Your task to perform on an android device: Open my contact list Image 0: 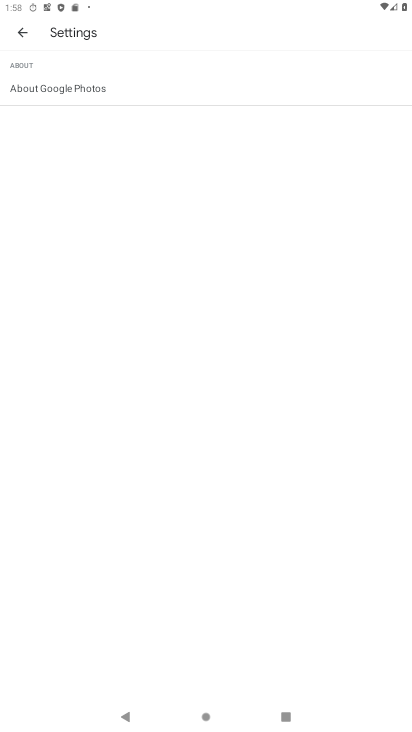
Step 0: press home button
Your task to perform on an android device: Open my contact list Image 1: 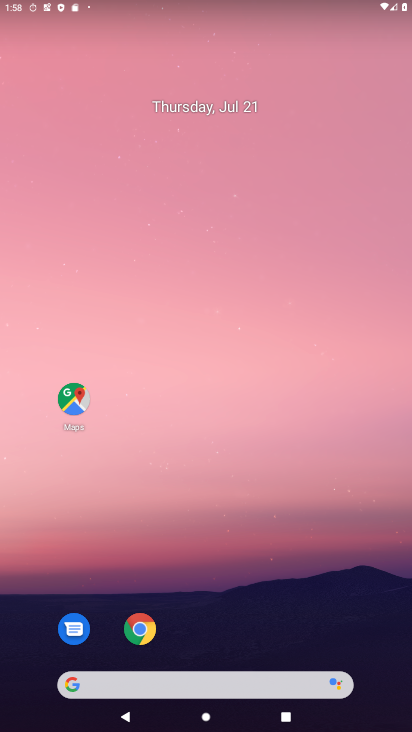
Step 1: drag from (101, 512) to (175, 325)
Your task to perform on an android device: Open my contact list Image 2: 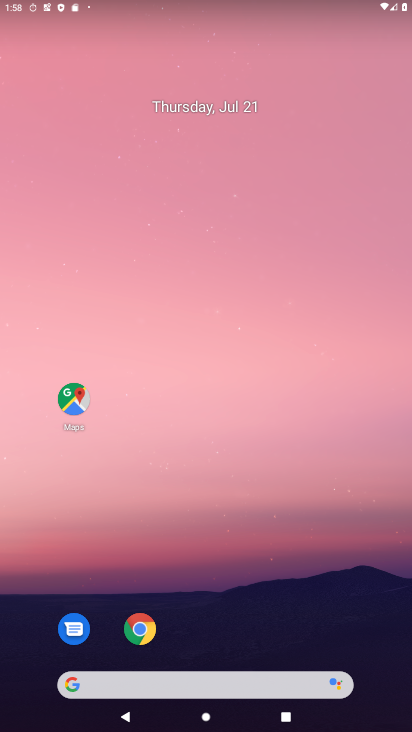
Step 2: drag from (18, 698) to (257, 109)
Your task to perform on an android device: Open my contact list Image 3: 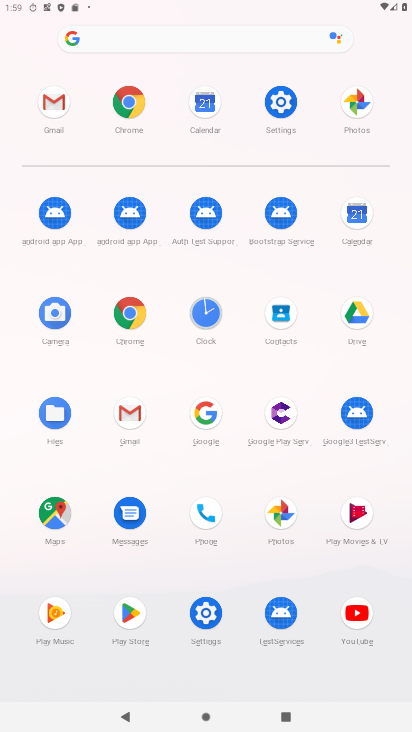
Step 3: click (207, 521)
Your task to perform on an android device: Open my contact list Image 4: 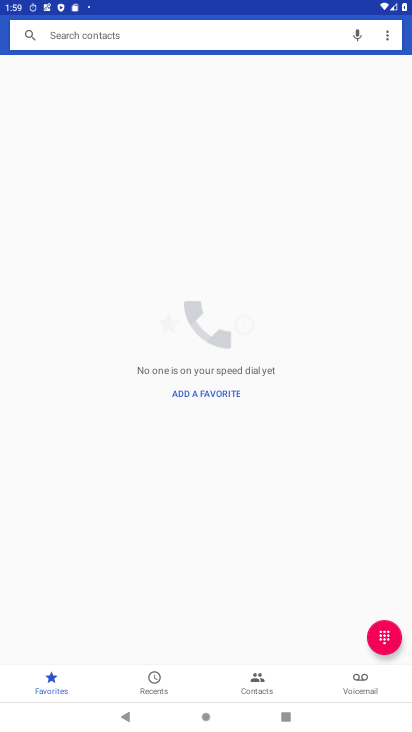
Step 4: click (259, 672)
Your task to perform on an android device: Open my contact list Image 5: 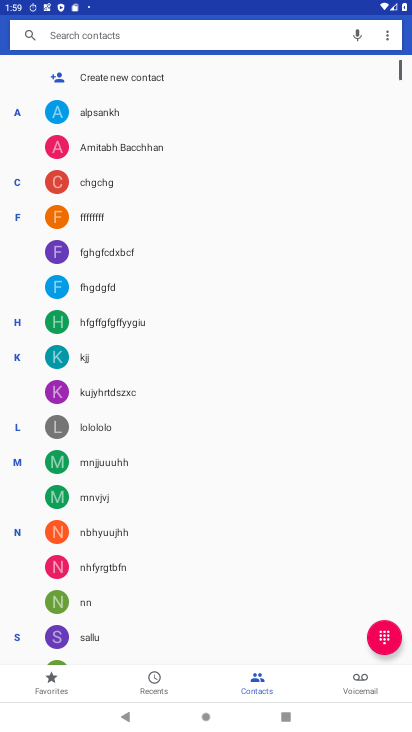
Step 5: task complete